Your task to perform on an android device: find which apps use the phone's location Image 0: 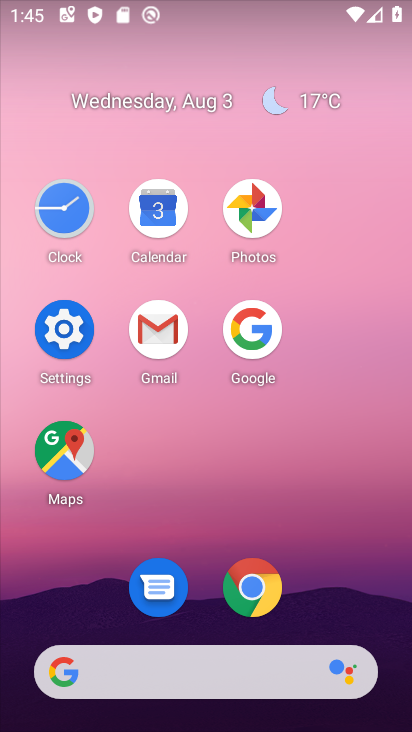
Step 0: click (92, 326)
Your task to perform on an android device: find which apps use the phone's location Image 1: 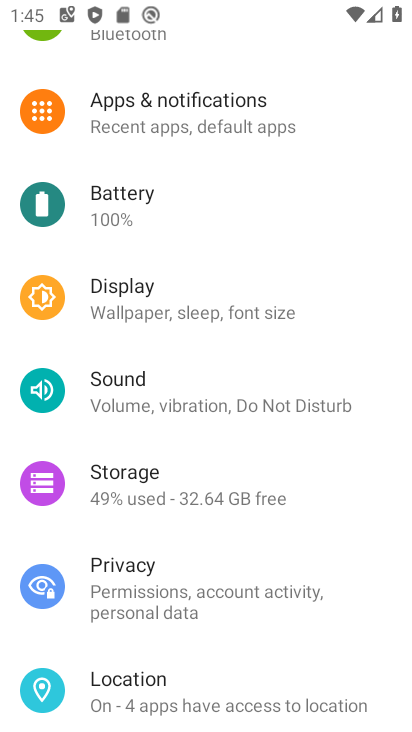
Step 1: click (137, 696)
Your task to perform on an android device: find which apps use the phone's location Image 2: 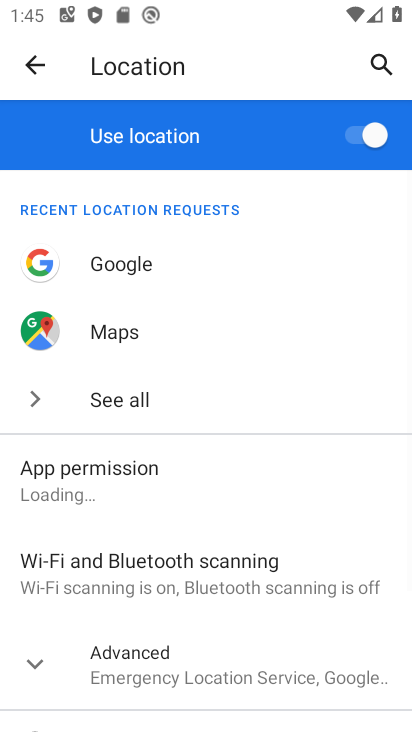
Step 2: drag from (169, 628) to (245, 273)
Your task to perform on an android device: find which apps use the phone's location Image 3: 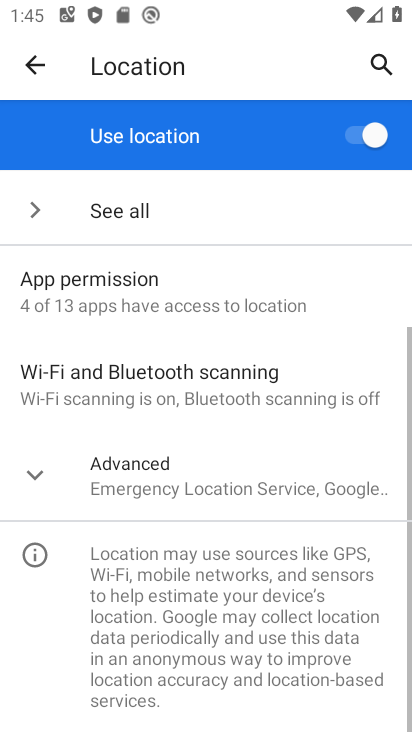
Step 3: click (199, 469)
Your task to perform on an android device: find which apps use the phone's location Image 4: 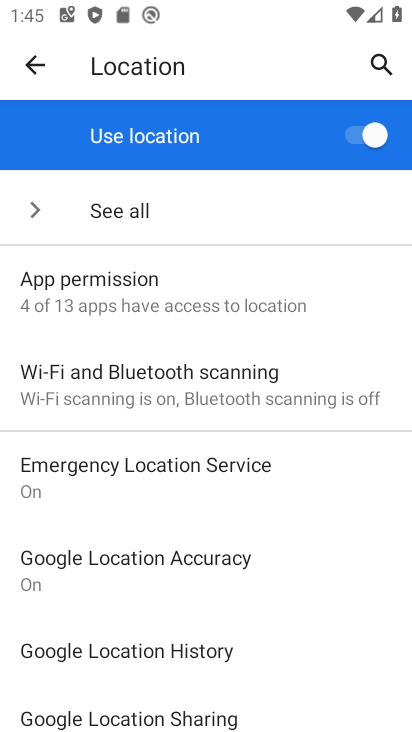
Step 4: task complete